Your task to perform on an android device: Open Youtube and go to the subscriptions tab Image 0: 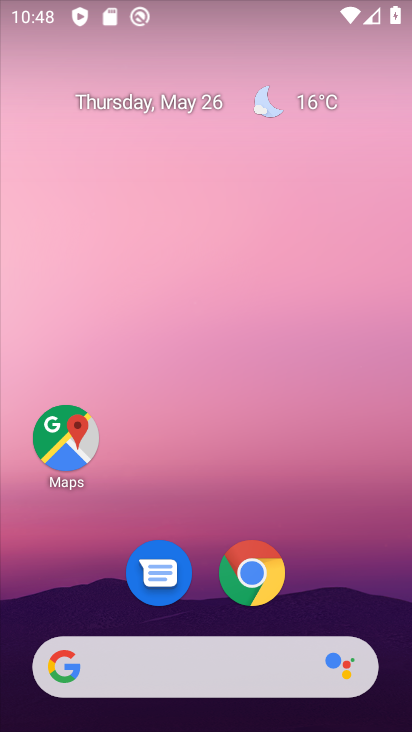
Step 0: drag from (395, 557) to (340, 159)
Your task to perform on an android device: Open Youtube and go to the subscriptions tab Image 1: 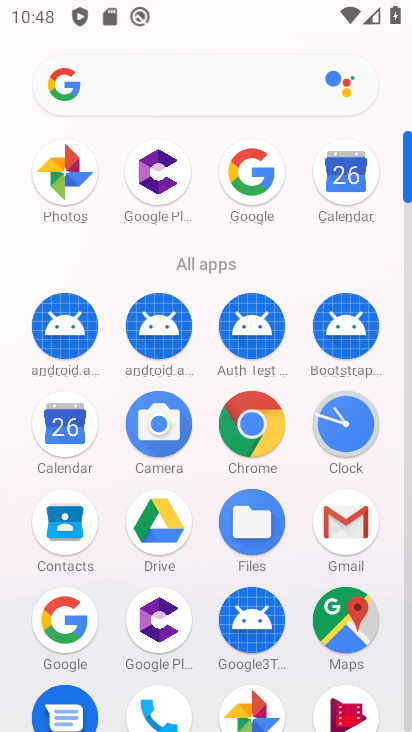
Step 1: drag from (267, 256) to (253, 93)
Your task to perform on an android device: Open Youtube and go to the subscriptions tab Image 2: 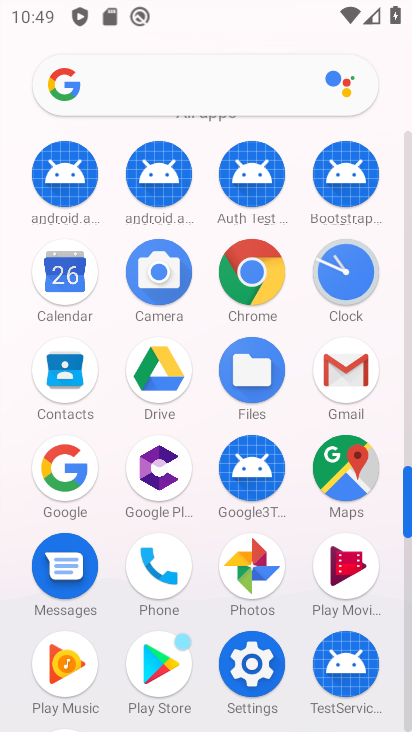
Step 2: drag from (206, 236) to (197, 79)
Your task to perform on an android device: Open Youtube and go to the subscriptions tab Image 3: 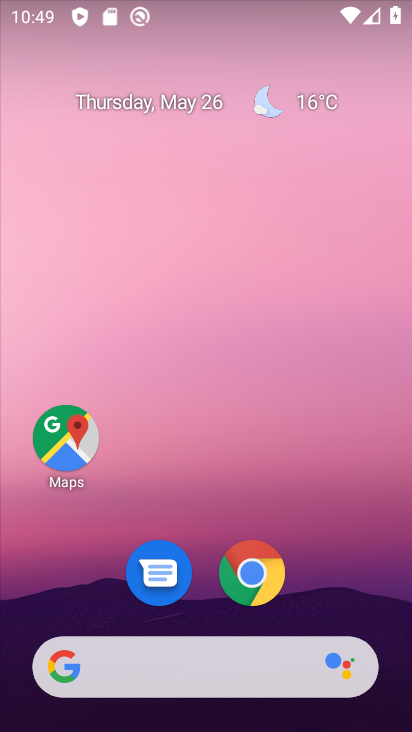
Step 3: drag from (318, 431) to (299, 0)
Your task to perform on an android device: Open Youtube and go to the subscriptions tab Image 4: 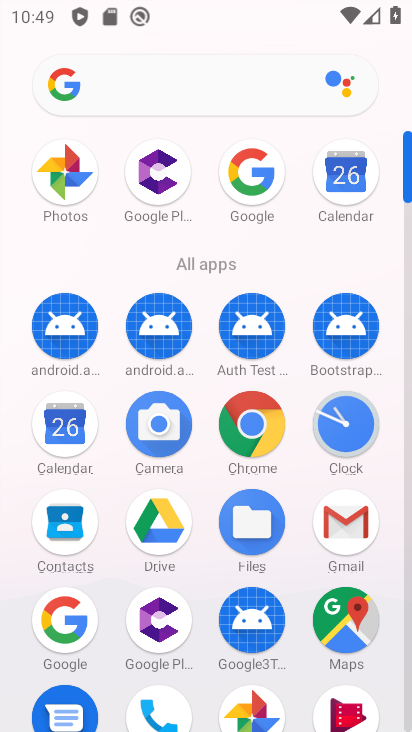
Step 4: drag from (300, 566) to (274, 317)
Your task to perform on an android device: Open Youtube and go to the subscriptions tab Image 5: 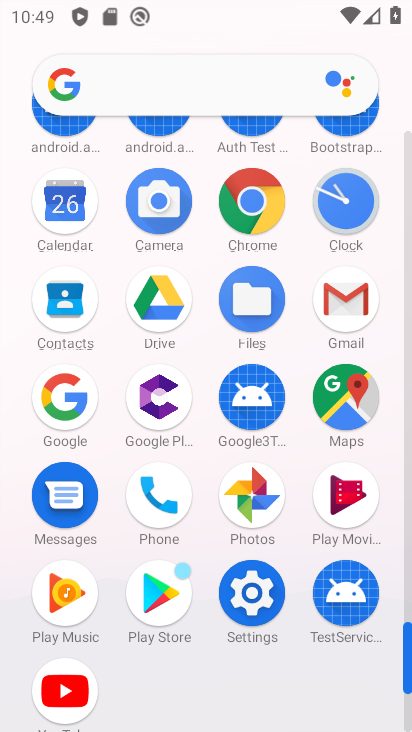
Step 5: click (75, 671)
Your task to perform on an android device: Open Youtube and go to the subscriptions tab Image 6: 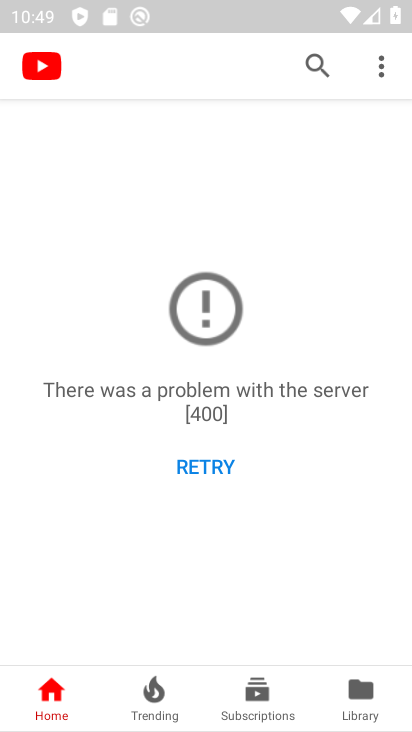
Step 6: click (261, 696)
Your task to perform on an android device: Open Youtube and go to the subscriptions tab Image 7: 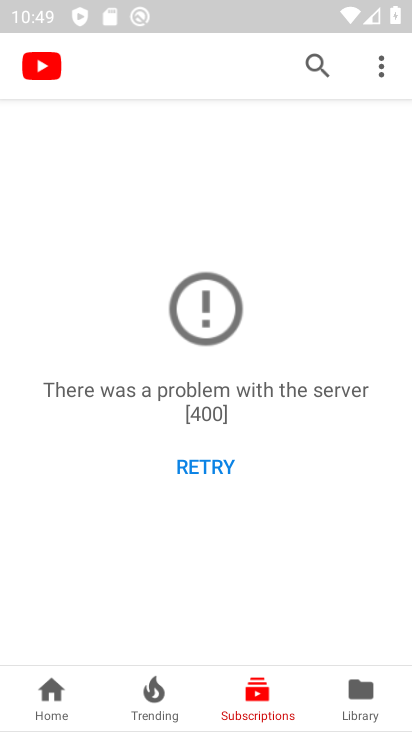
Step 7: task complete